Your task to perform on an android device: check battery use Image 0: 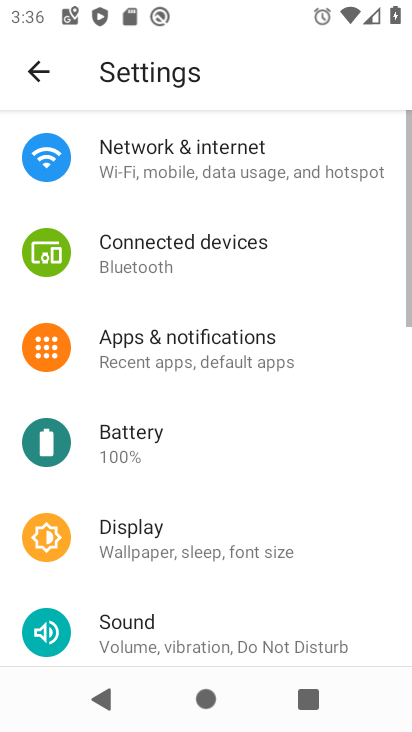
Step 0: press home button
Your task to perform on an android device: check battery use Image 1: 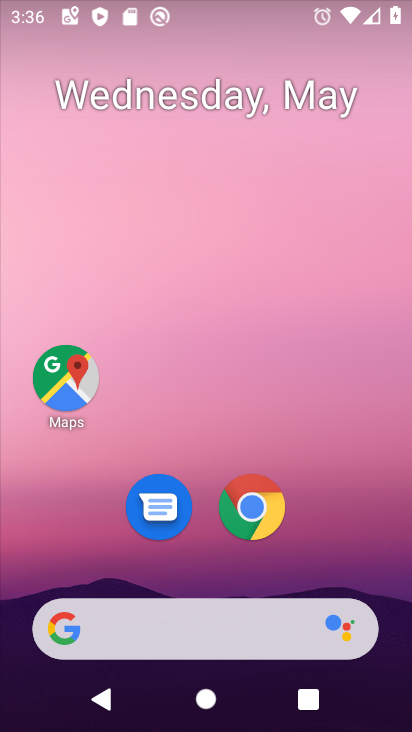
Step 1: drag from (200, 559) to (265, 78)
Your task to perform on an android device: check battery use Image 2: 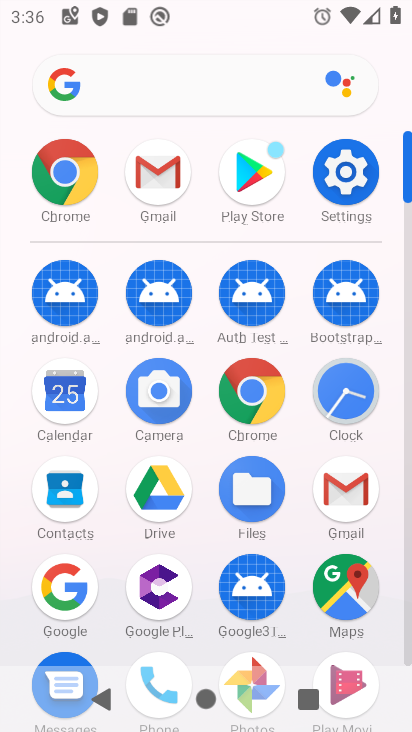
Step 2: click (343, 168)
Your task to perform on an android device: check battery use Image 3: 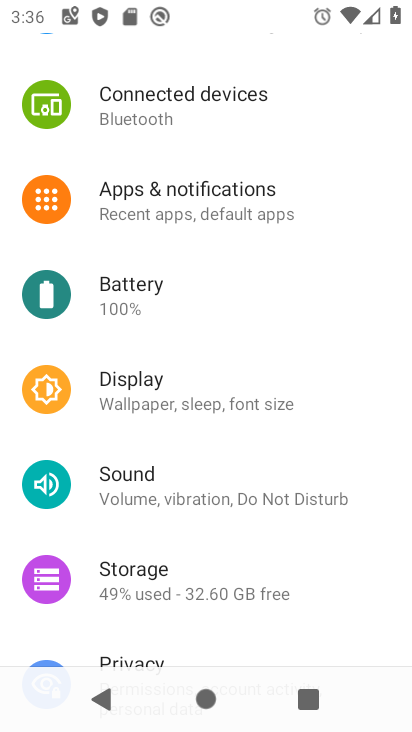
Step 3: click (161, 298)
Your task to perform on an android device: check battery use Image 4: 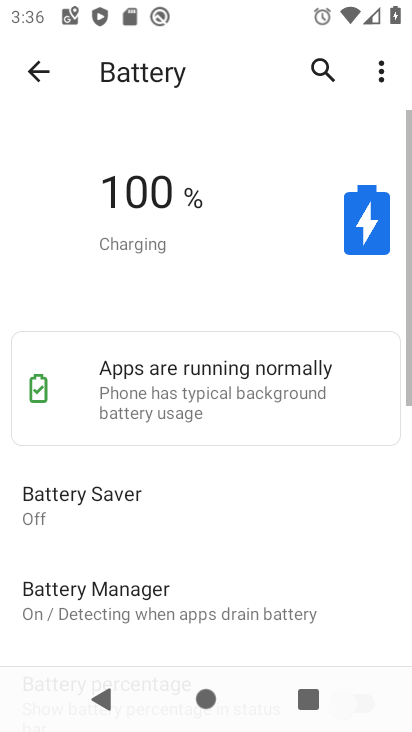
Step 4: drag from (205, 528) to (226, 416)
Your task to perform on an android device: check battery use Image 5: 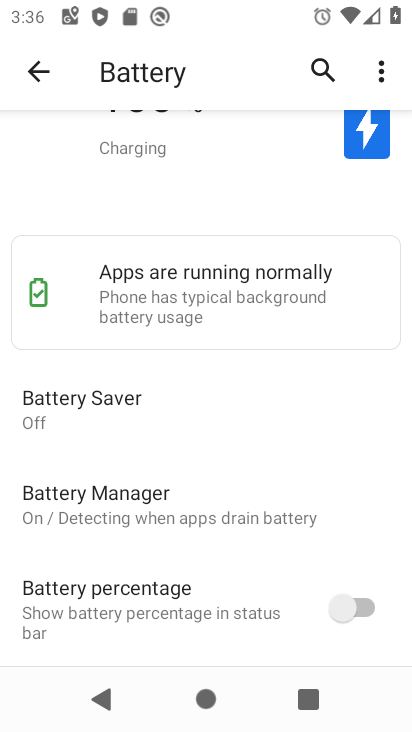
Step 5: click (367, 74)
Your task to perform on an android device: check battery use Image 6: 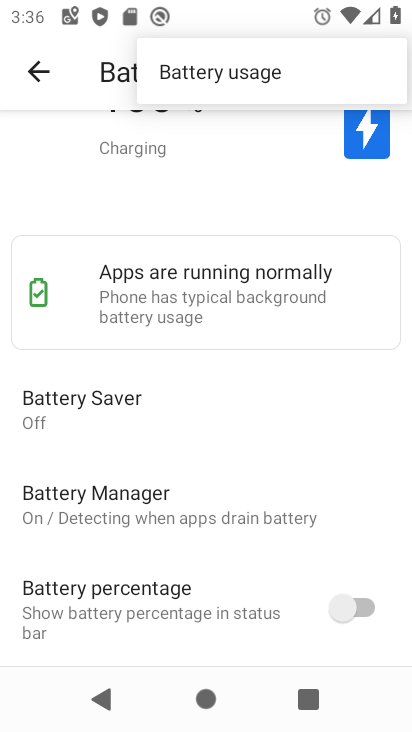
Step 6: click (239, 81)
Your task to perform on an android device: check battery use Image 7: 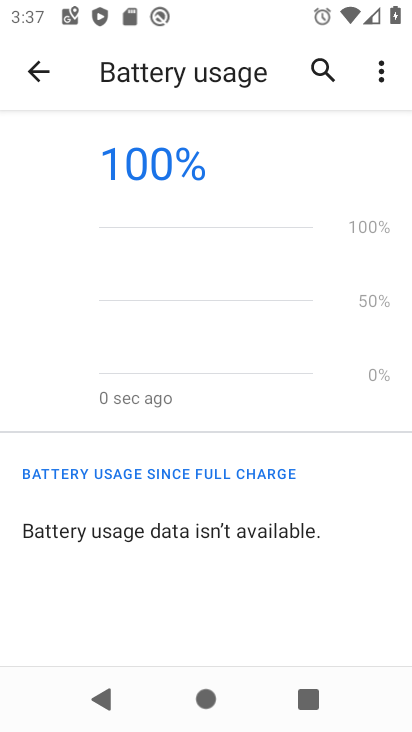
Step 7: task complete